Your task to perform on an android device: install app "Google Keep" Image 0: 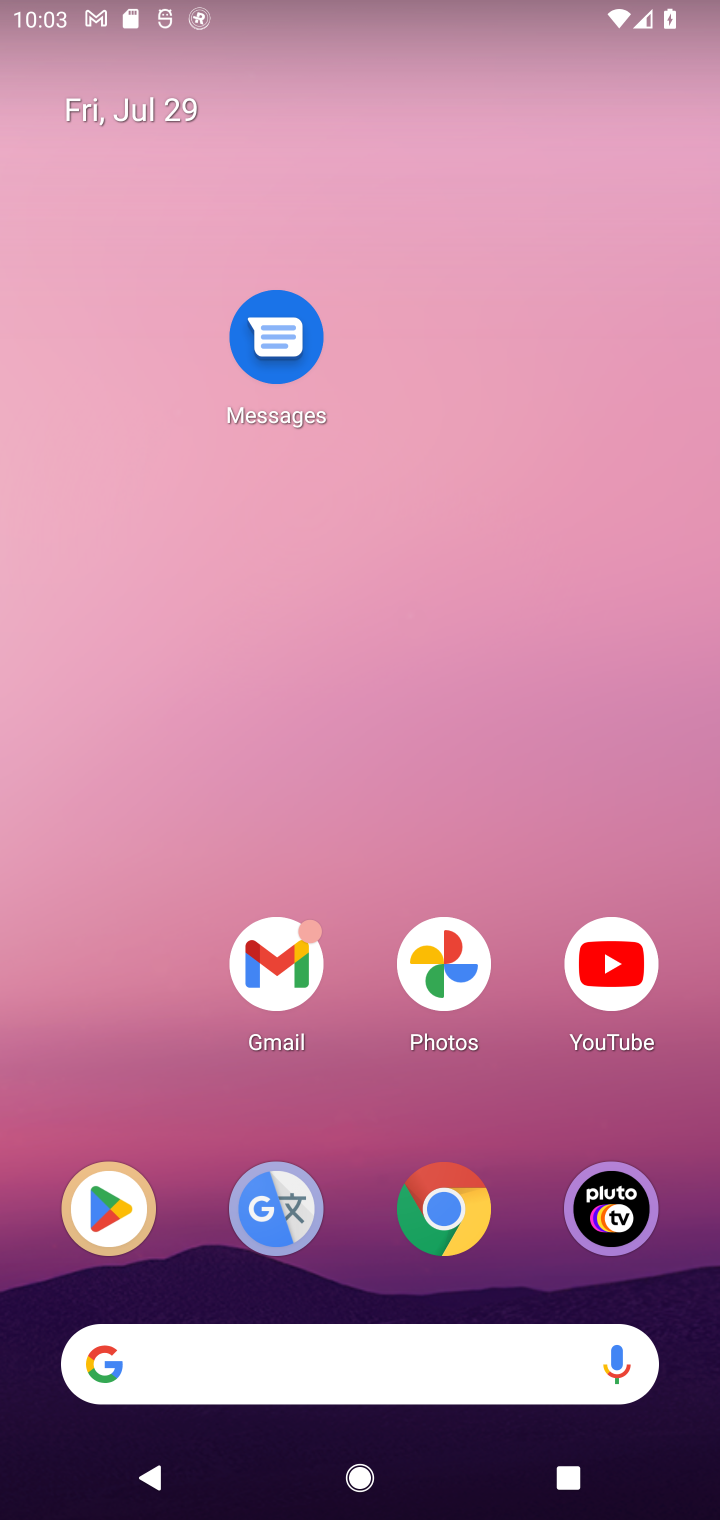
Step 0: drag from (346, 1343) to (387, 457)
Your task to perform on an android device: install app "Google Keep" Image 1: 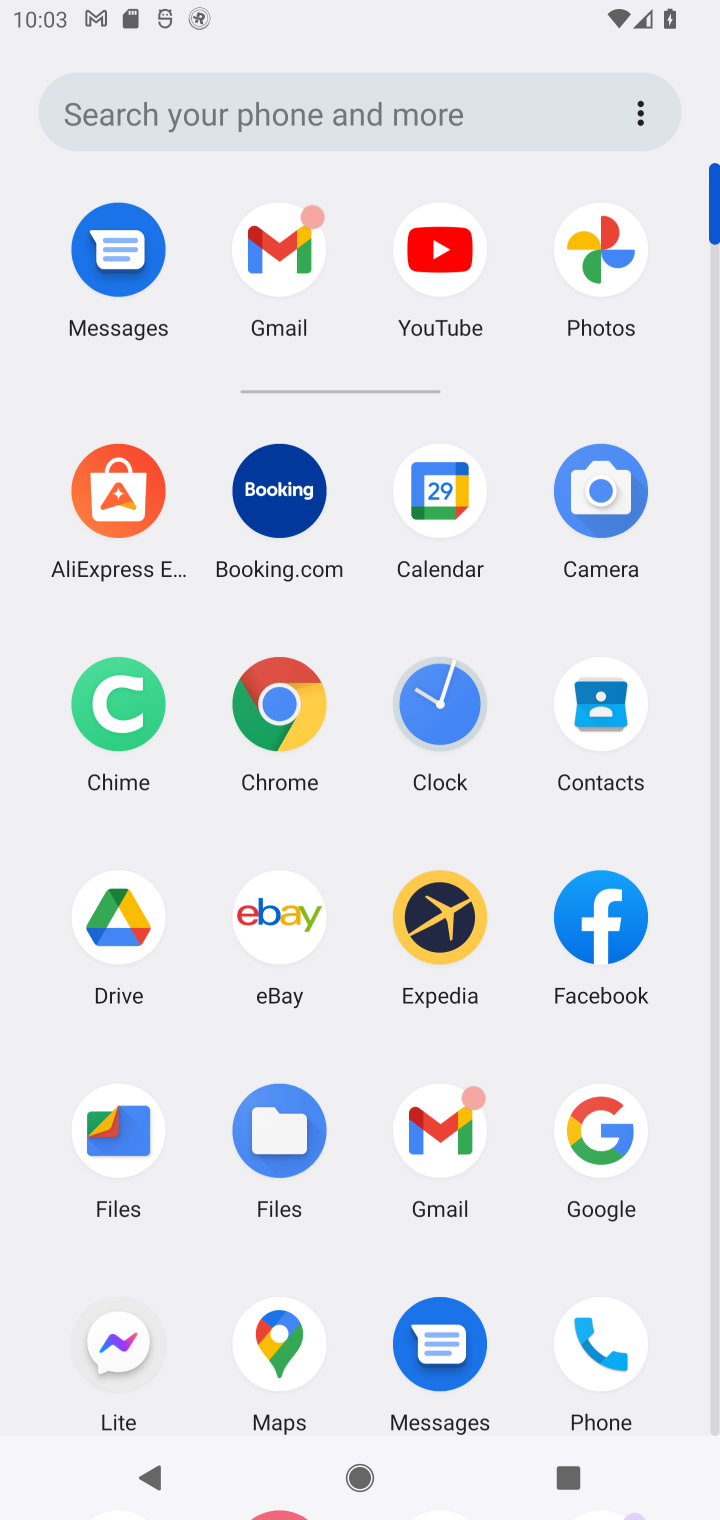
Step 1: drag from (324, 1282) to (326, 716)
Your task to perform on an android device: install app "Google Keep" Image 2: 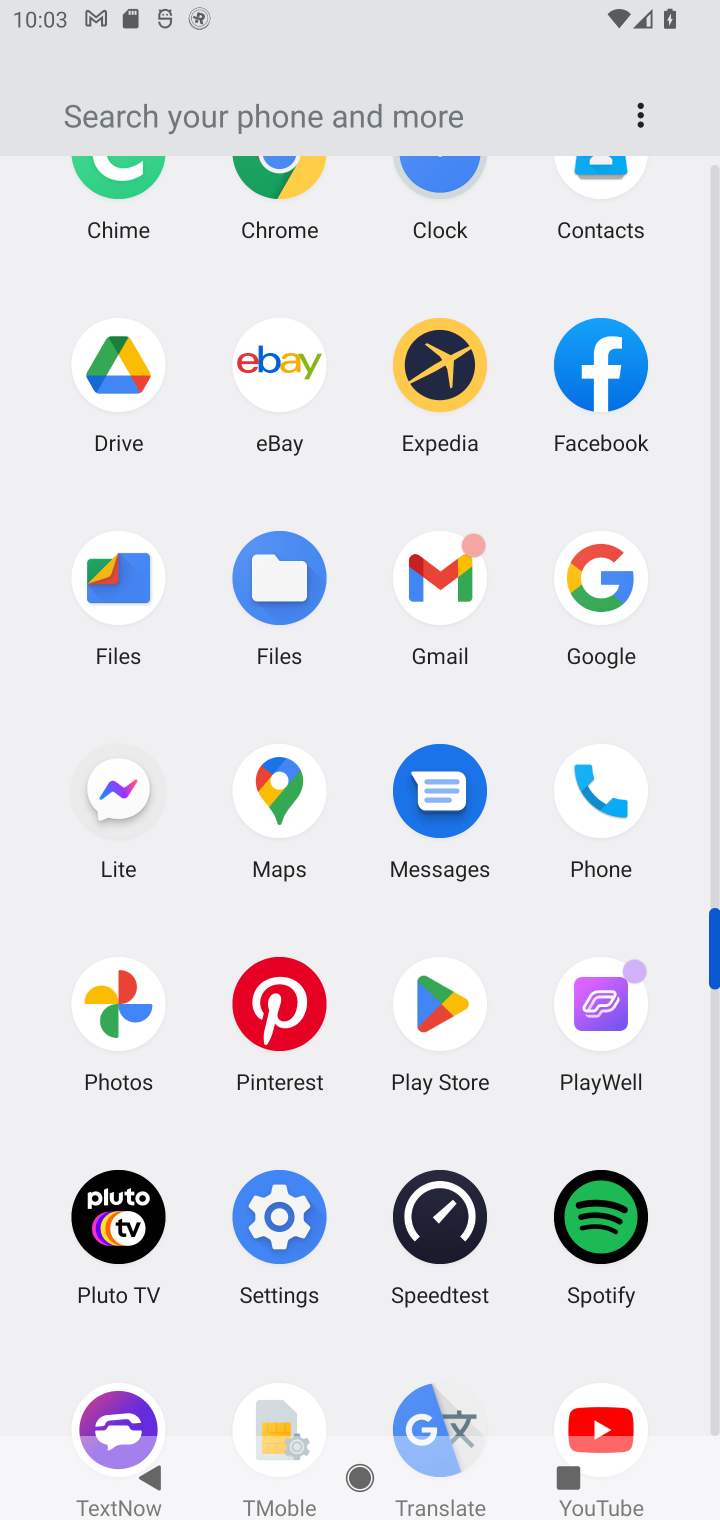
Step 2: click (432, 1012)
Your task to perform on an android device: install app "Google Keep" Image 3: 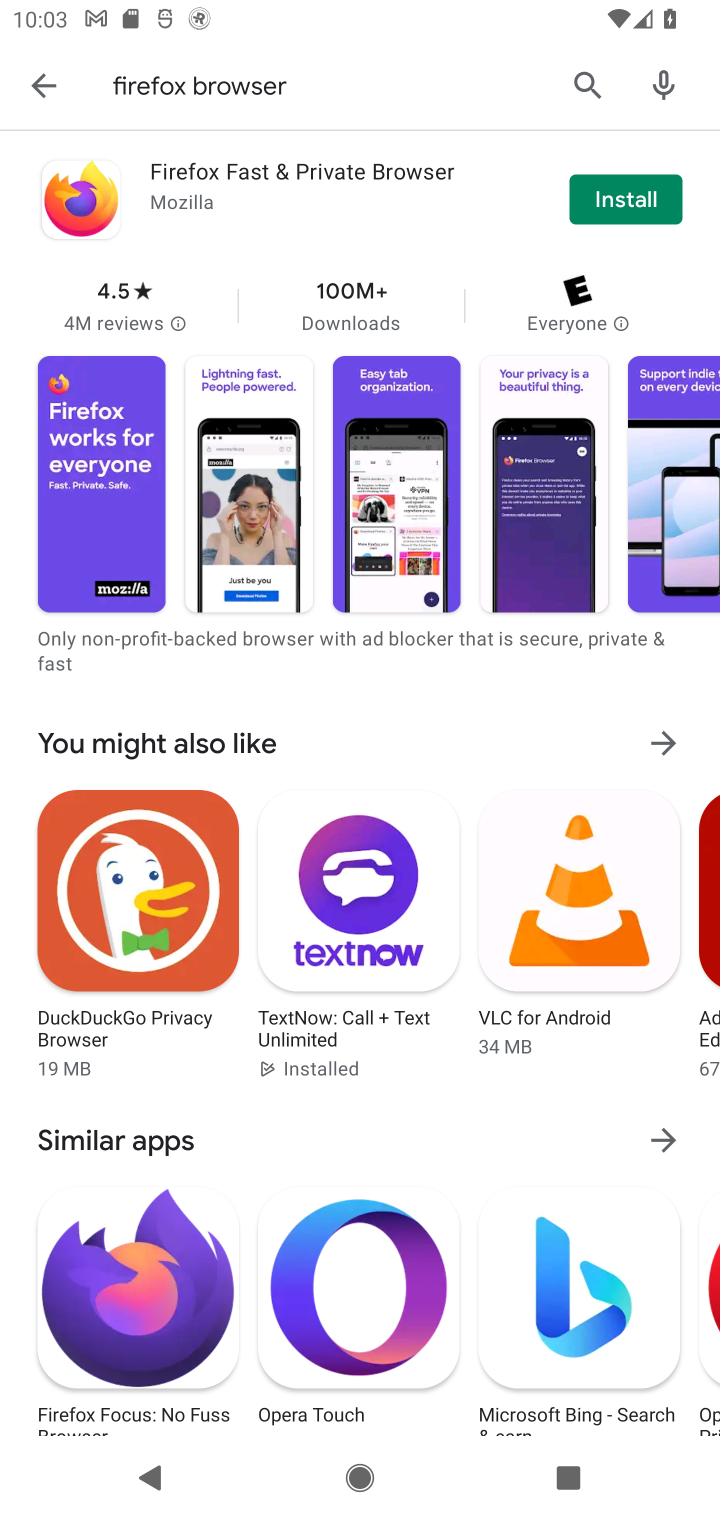
Step 3: click (582, 83)
Your task to perform on an android device: install app "Google Keep" Image 4: 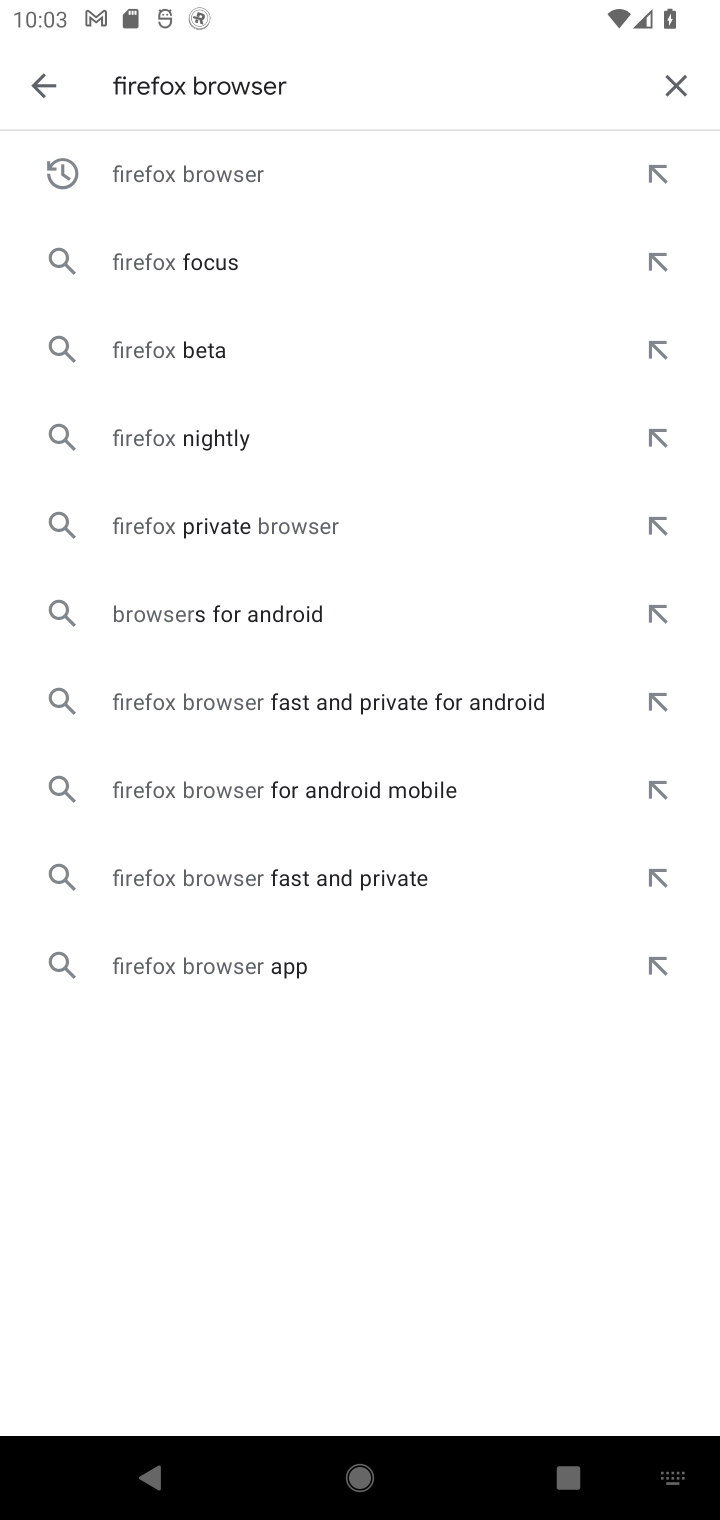
Step 4: click (658, 82)
Your task to perform on an android device: install app "Google Keep" Image 5: 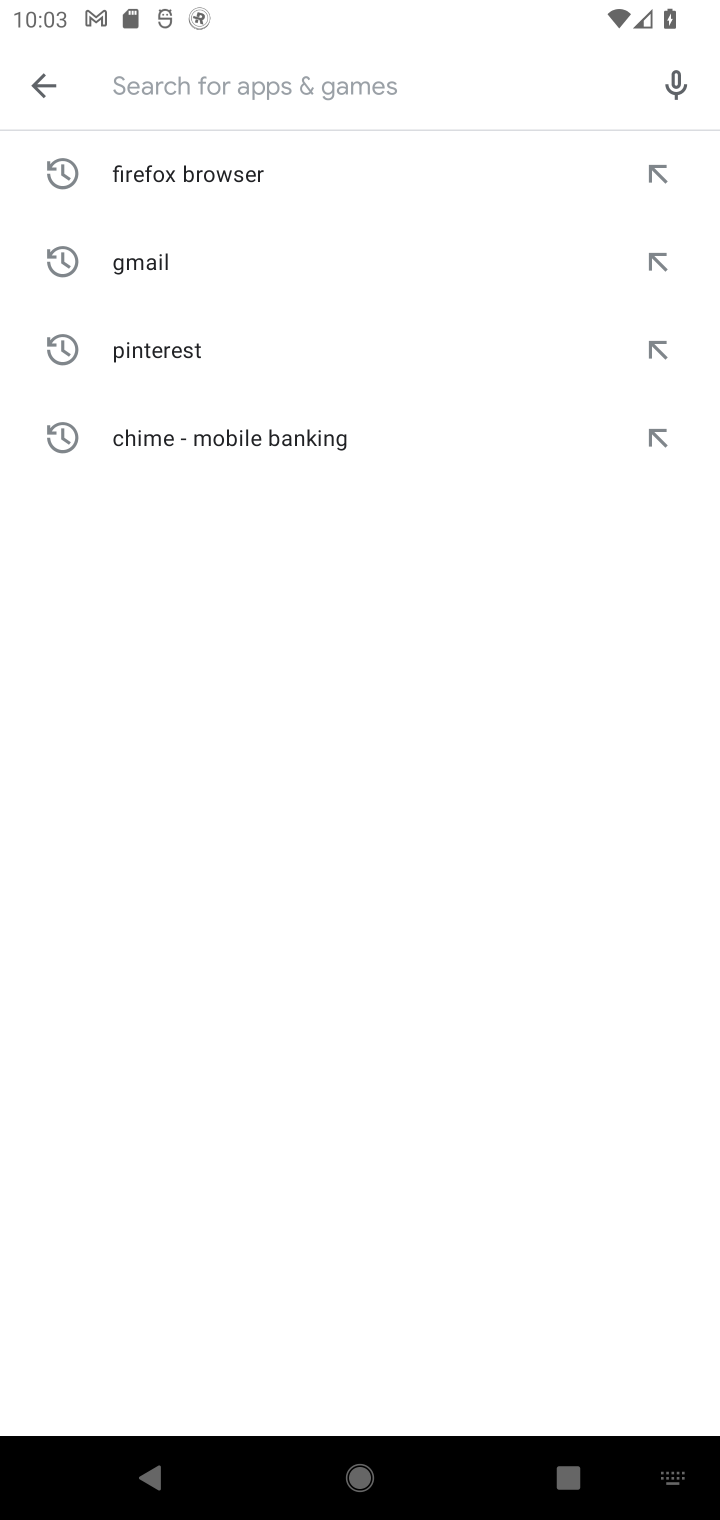
Step 5: type "Google Keep"
Your task to perform on an android device: install app "Google Keep" Image 6: 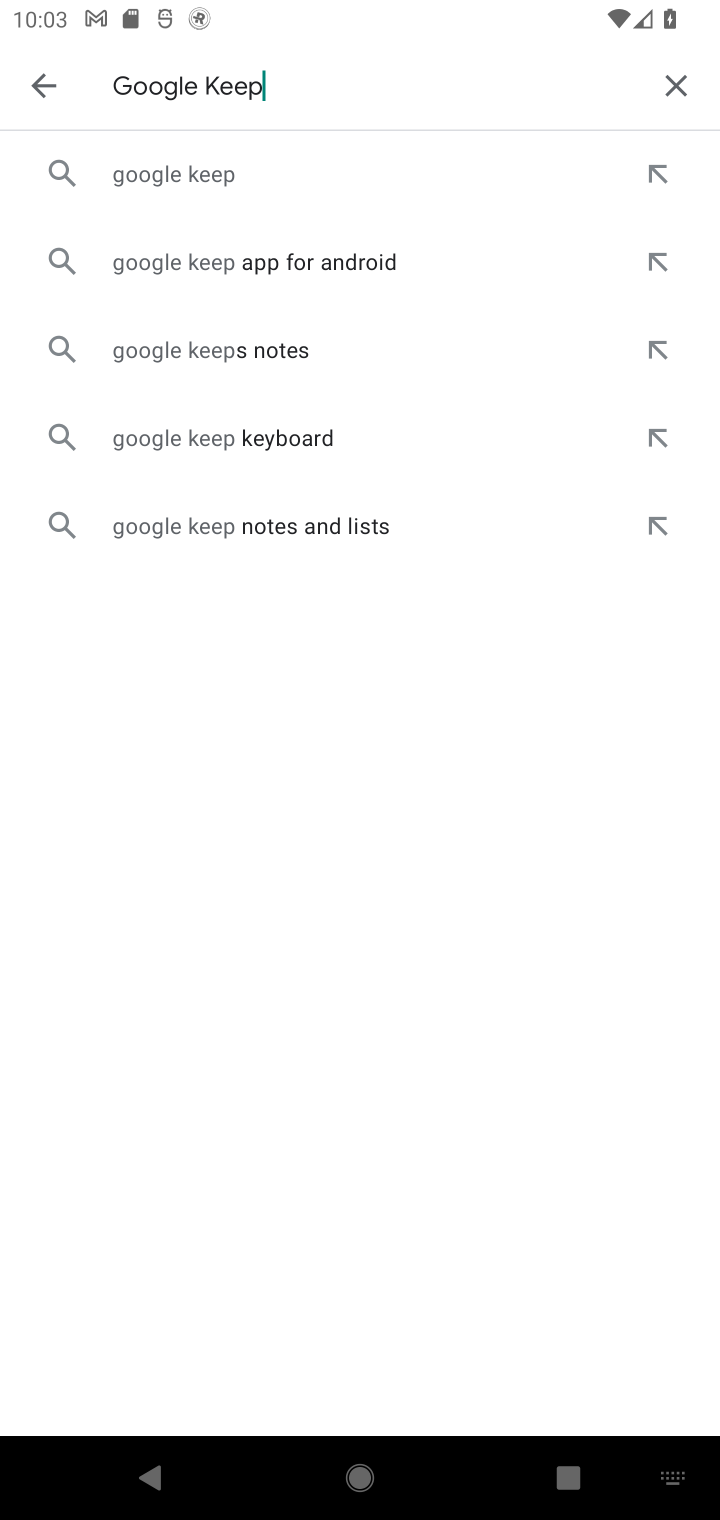
Step 6: click (223, 179)
Your task to perform on an android device: install app "Google Keep" Image 7: 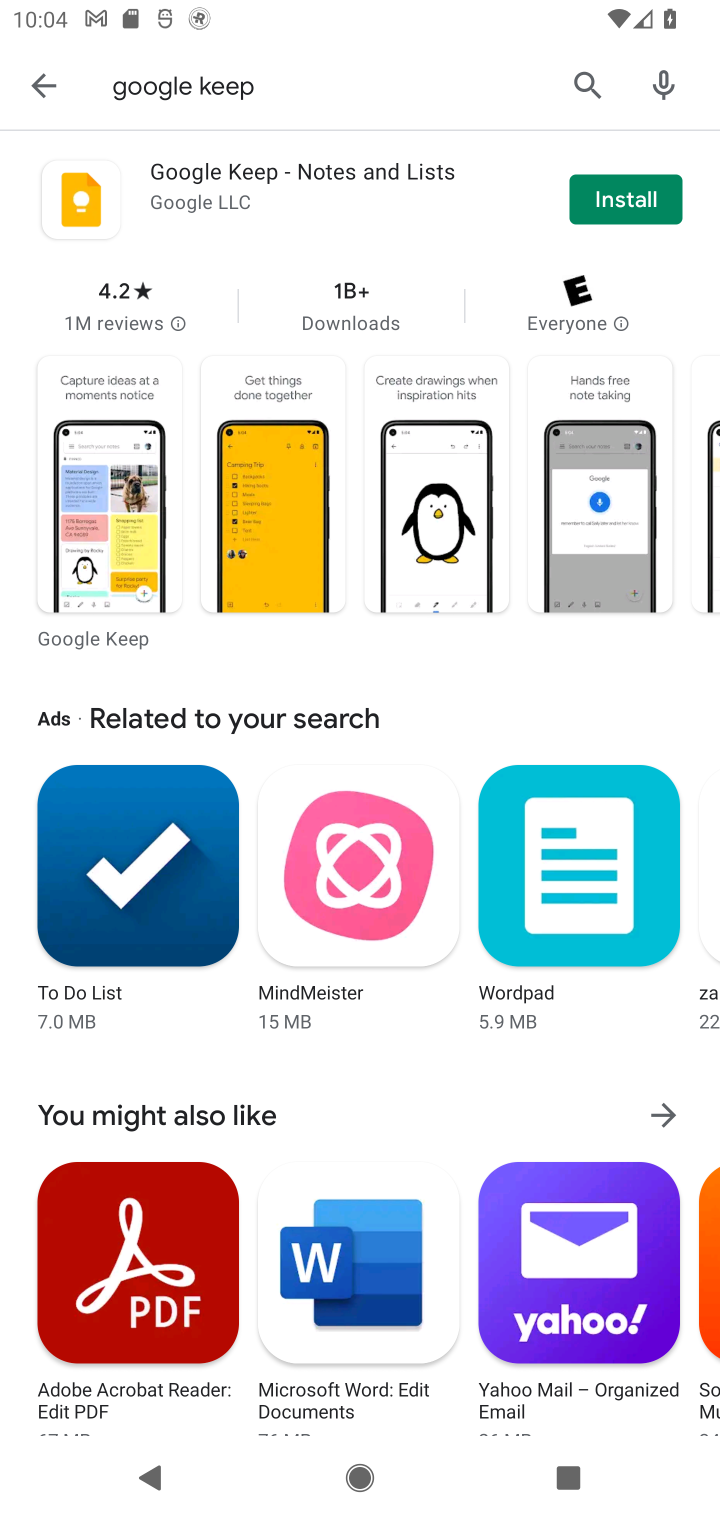
Step 7: click (637, 196)
Your task to perform on an android device: install app "Google Keep" Image 8: 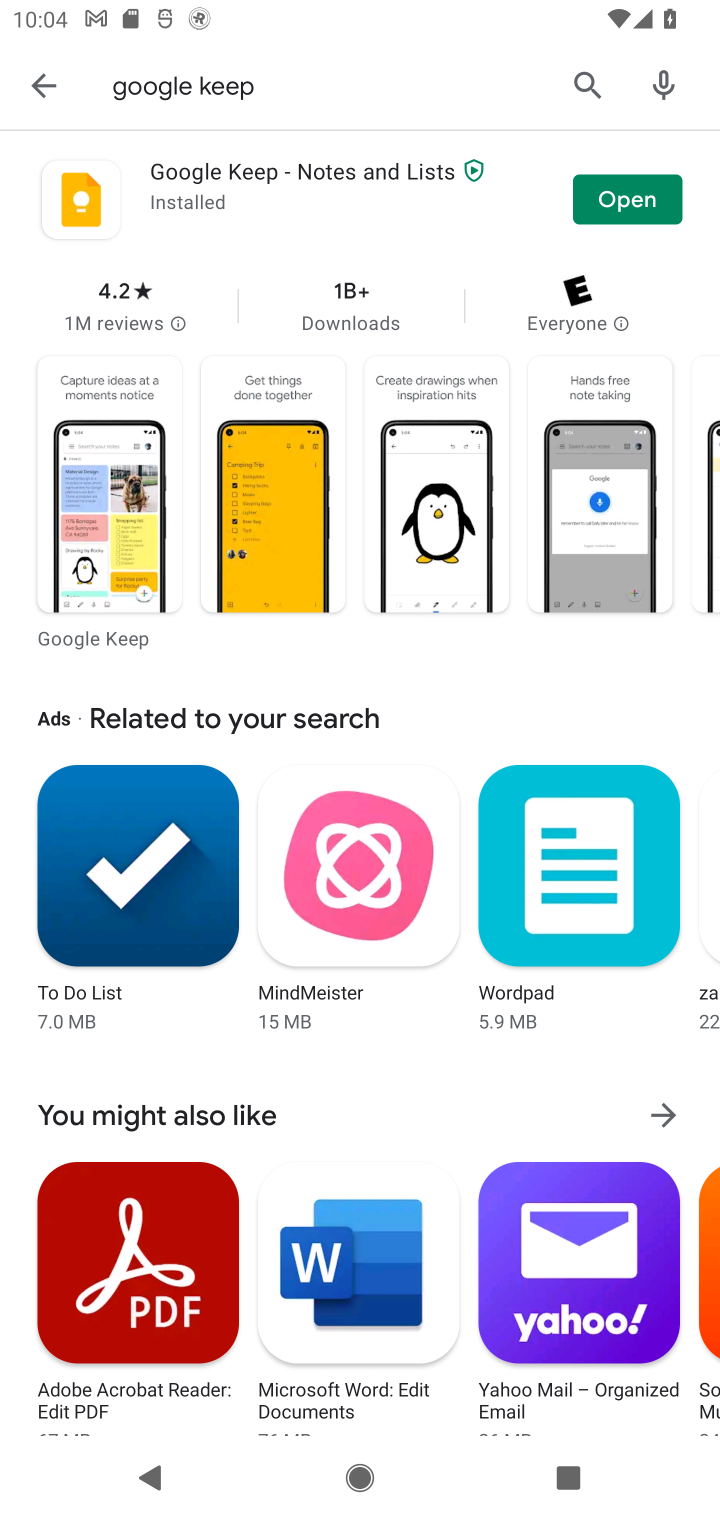
Step 8: task complete